Your task to perform on an android device: Open wifi settings Image 0: 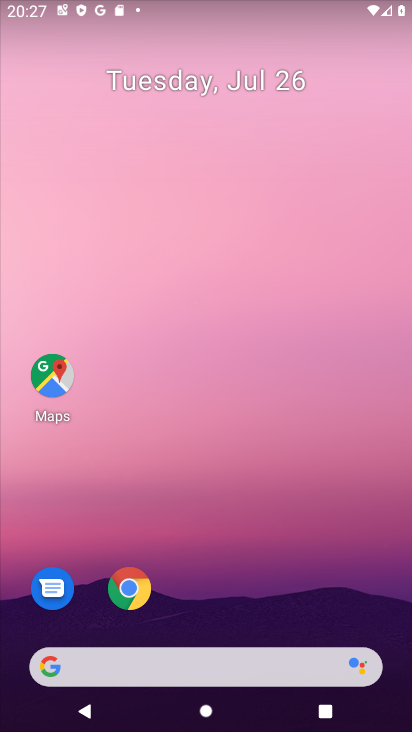
Step 0: press home button
Your task to perform on an android device: Open wifi settings Image 1: 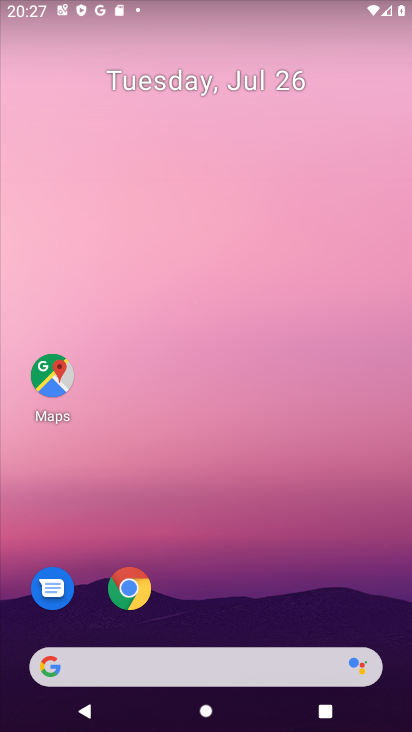
Step 1: drag from (294, 624) to (286, 241)
Your task to perform on an android device: Open wifi settings Image 2: 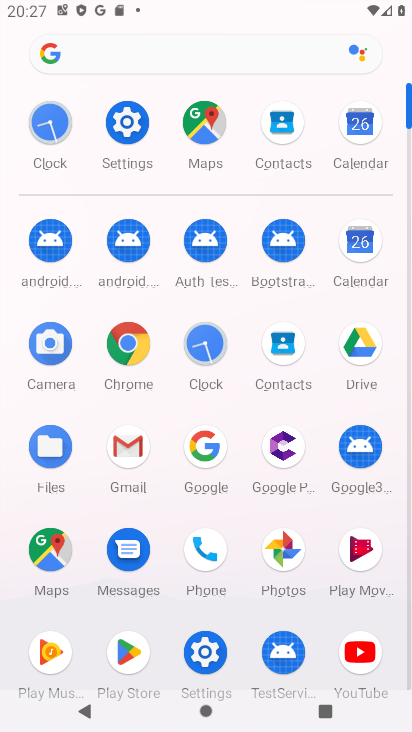
Step 2: click (133, 145)
Your task to perform on an android device: Open wifi settings Image 3: 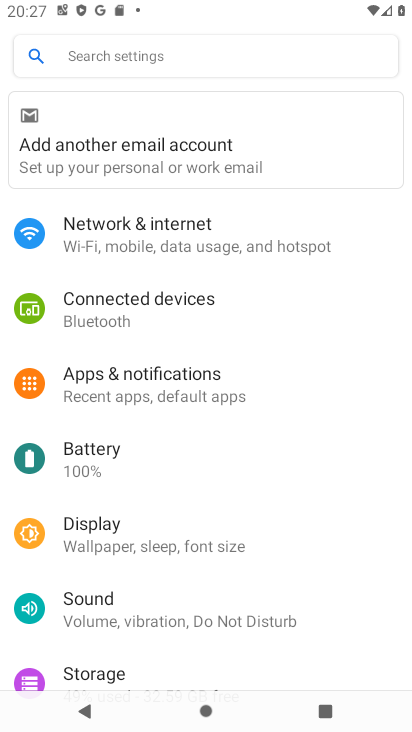
Step 3: click (157, 242)
Your task to perform on an android device: Open wifi settings Image 4: 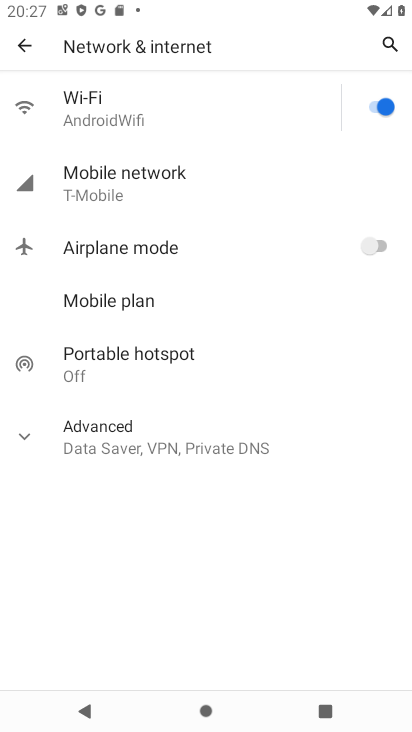
Step 4: click (124, 94)
Your task to perform on an android device: Open wifi settings Image 5: 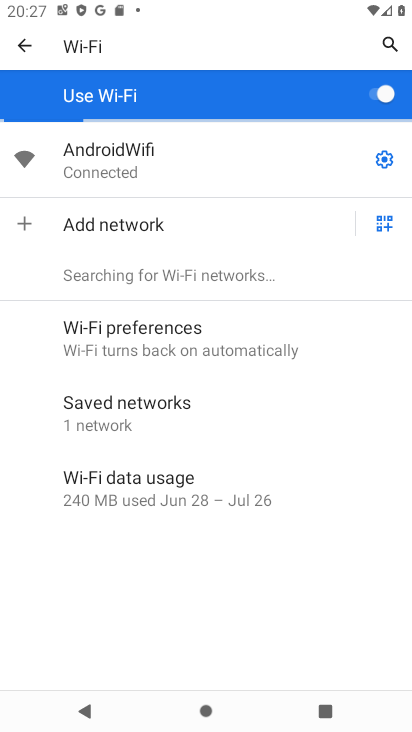
Step 5: task complete